Your task to perform on an android device: Open Reddit.com Image 0: 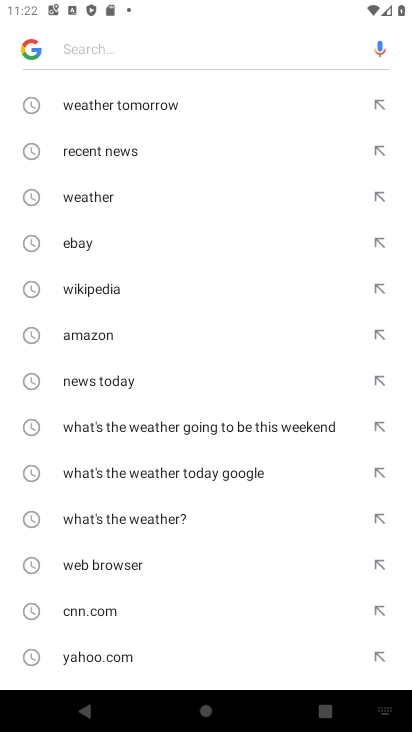
Step 0: press home button
Your task to perform on an android device: Open Reddit.com Image 1: 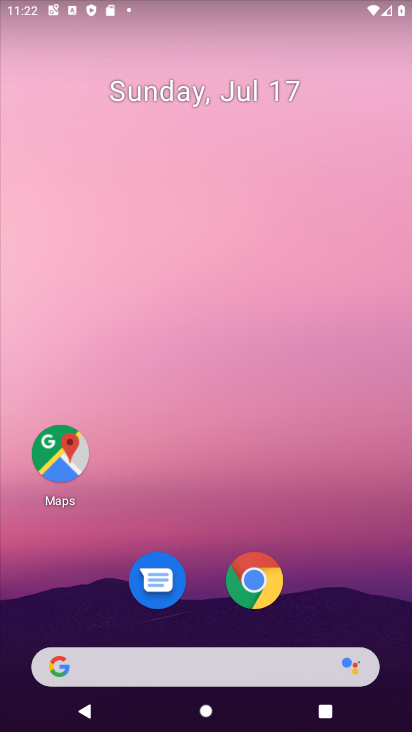
Step 1: drag from (238, 615) to (288, 0)
Your task to perform on an android device: Open Reddit.com Image 2: 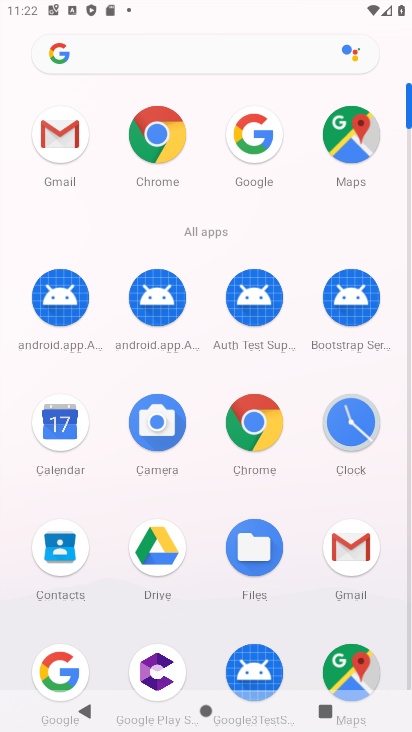
Step 2: click (155, 156)
Your task to perform on an android device: Open Reddit.com Image 3: 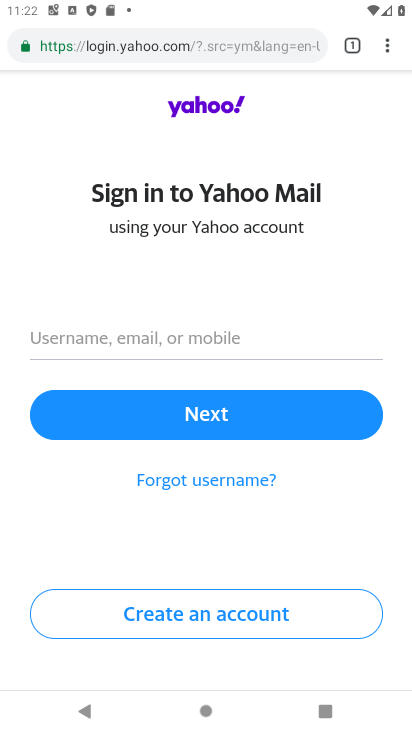
Step 3: click (221, 52)
Your task to perform on an android device: Open Reddit.com Image 4: 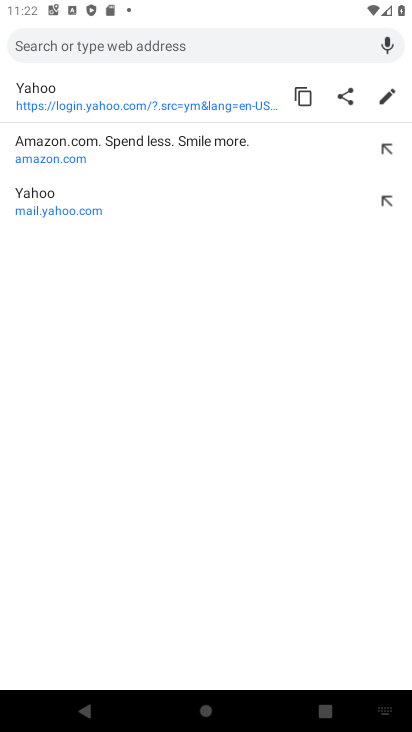
Step 4: type "reddit"
Your task to perform on an android device: Open Reddit.com Image 5: 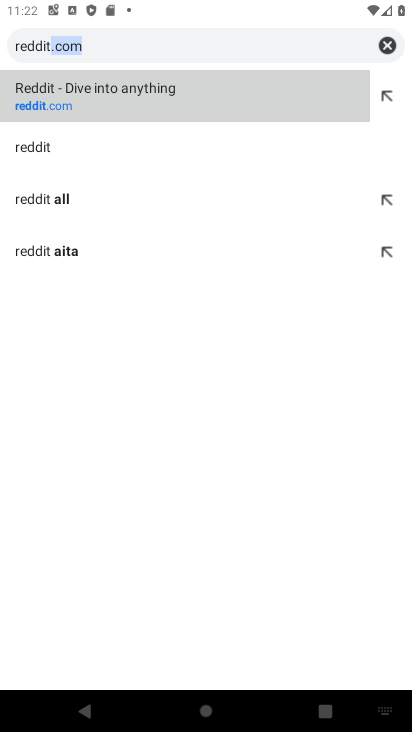
Step 5: click (171, 104)
Your task to perform on an android device: Open Reddit.com Image 6: 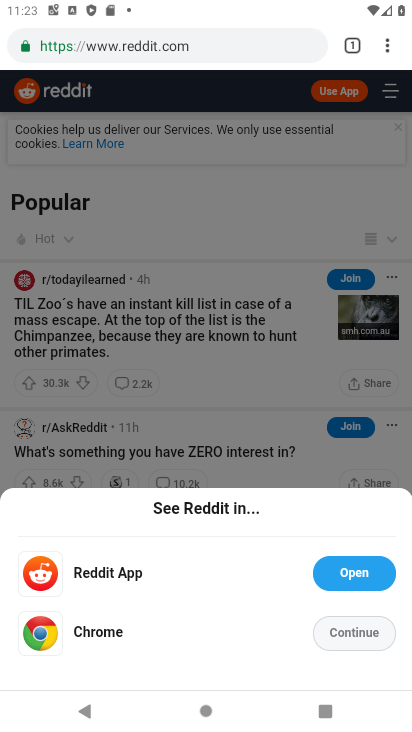
Step 6: task complete